Your task to perform on an android device: Open Google Maps Image 0: 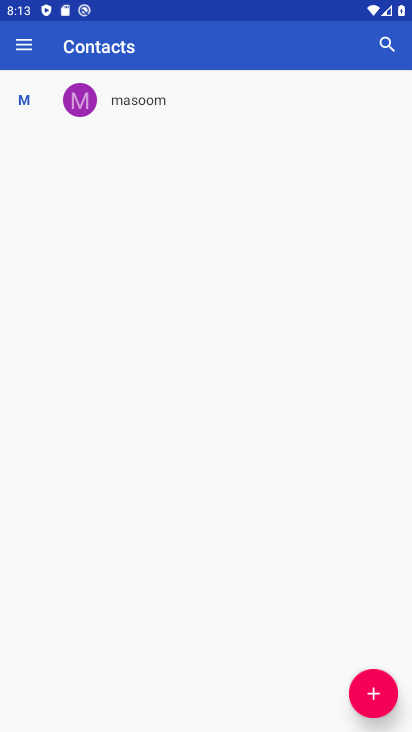
Step 0: press home button
Your task to perform on an android device: Open Google Maps Image 1: 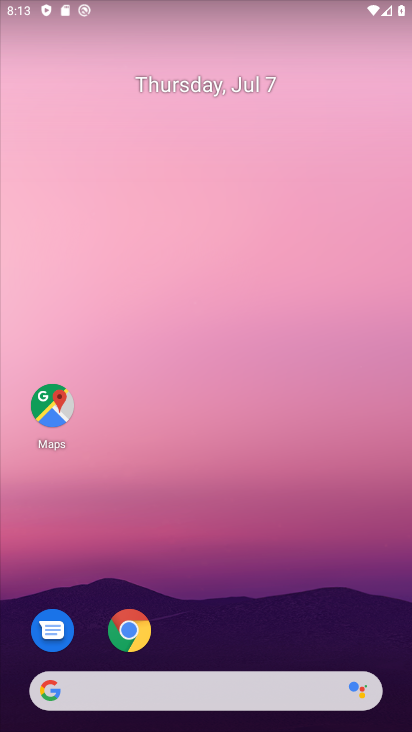
Step 1: click (61, 408)
Your task to perform on an android device: Open Google Maps Image 2: 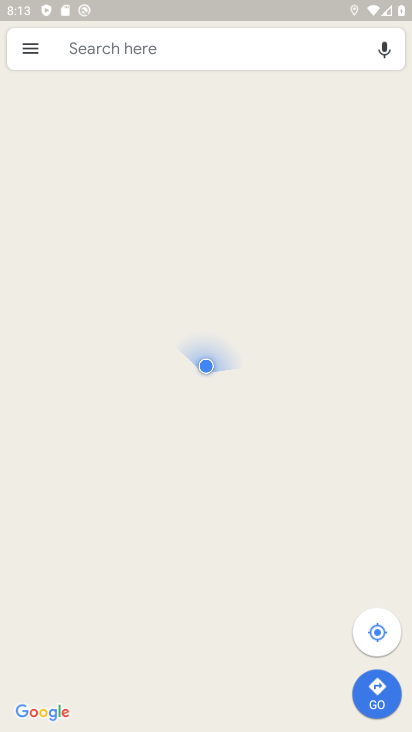
Step 2: task complete